Your task to perform on an android device: Open Reddit.com Image 0: 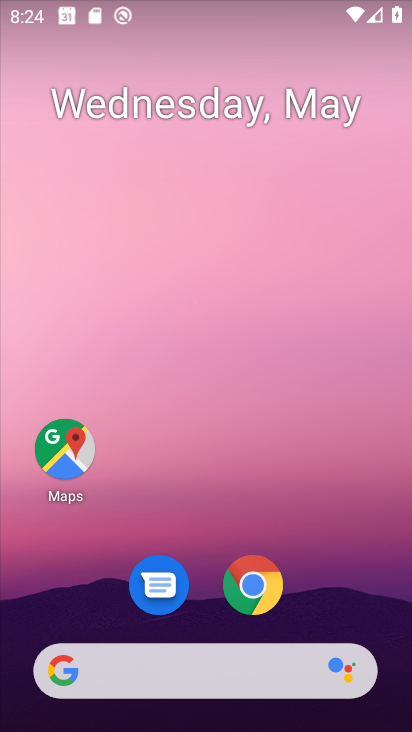
Step 0: click (235, 671)
Your task to perform on an android device: Open Reddit.com Image 1: 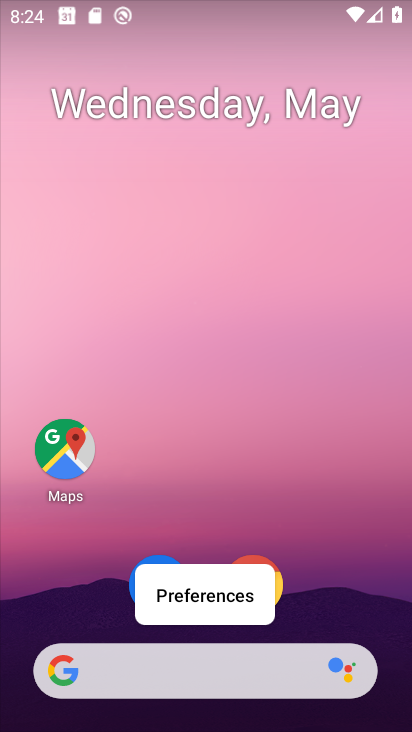
Step 1: click (228, 687)
Your task to perform on an android device: Open Reddit.com Image 2: 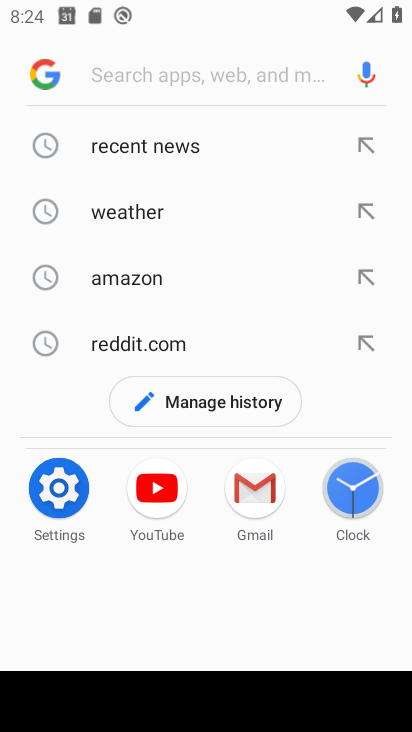
Step 2: click (142, 334)
Your task to perform on an android device: Open Reddit.com Image 3: 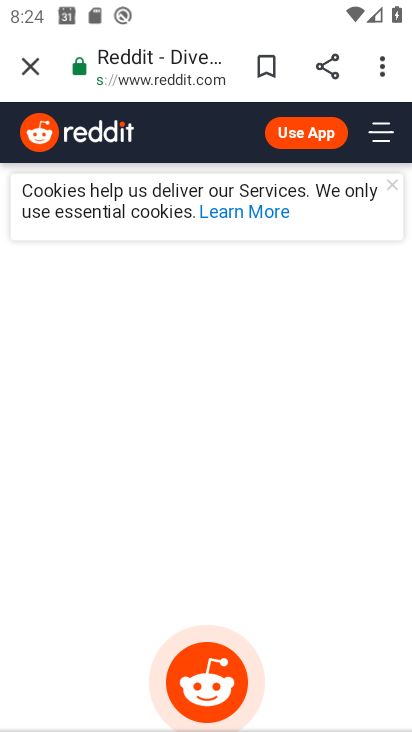
Step 3: task complete